Your task to perform on an android device: change timer sound Image 0: 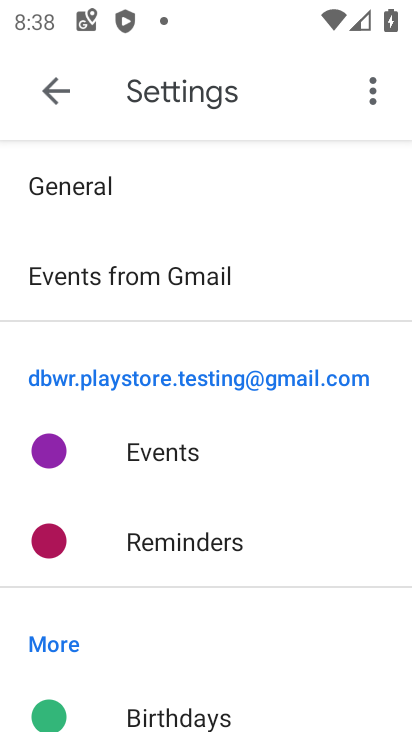
Step 0: press home button
Your task to perform on an android device: change timer sound Image 1: 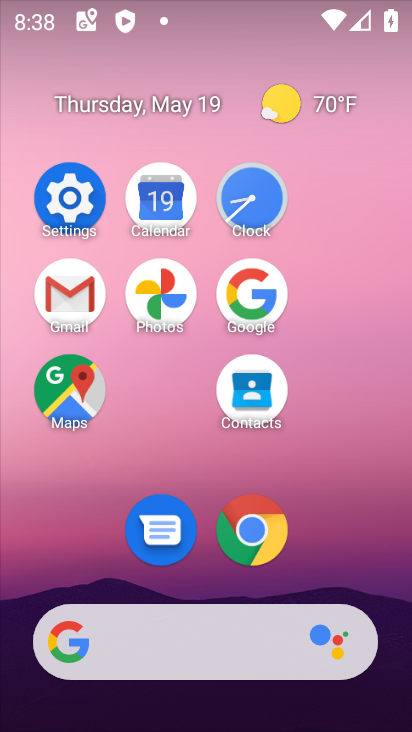
Step 1: click (246, 207)
Your task to perform on an android device: change timer sound Image 2: 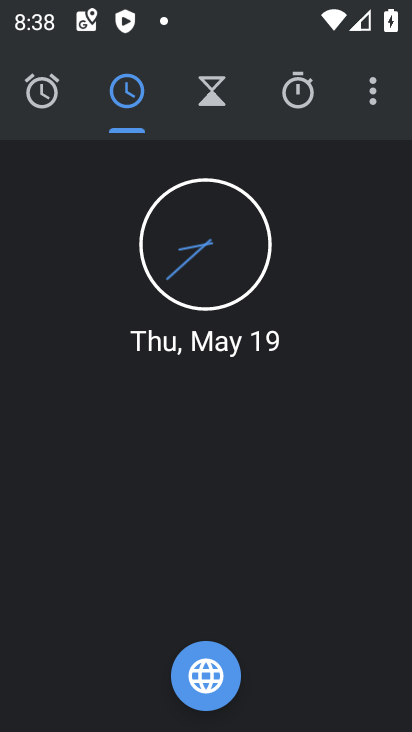
Step 2: click (374, 84)
Your task to perform on an android device: change timer sound Image 3: 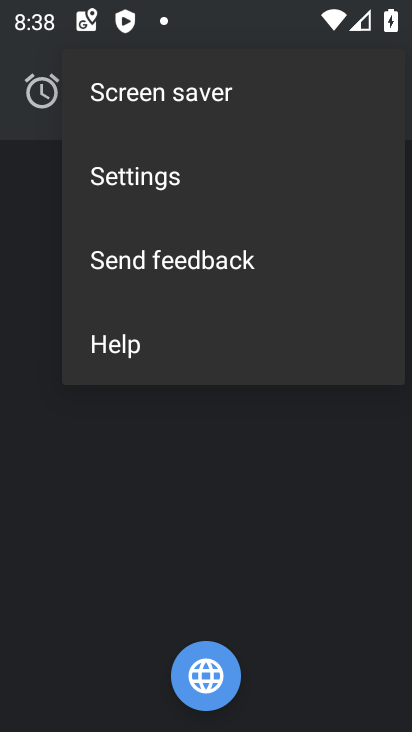
Step 3: click (168, 171)
Your task to perform on an android device: change timer sound Image 4: 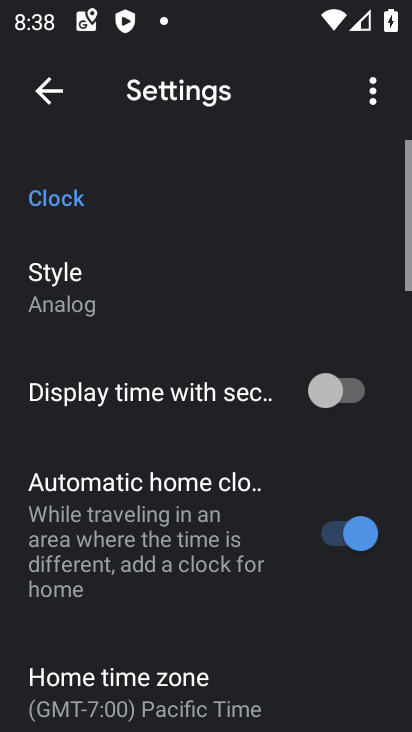
Step 4: drag from (196, 545) to (248, 180)
Your task to perform on an android device: change timer sound Image 5: 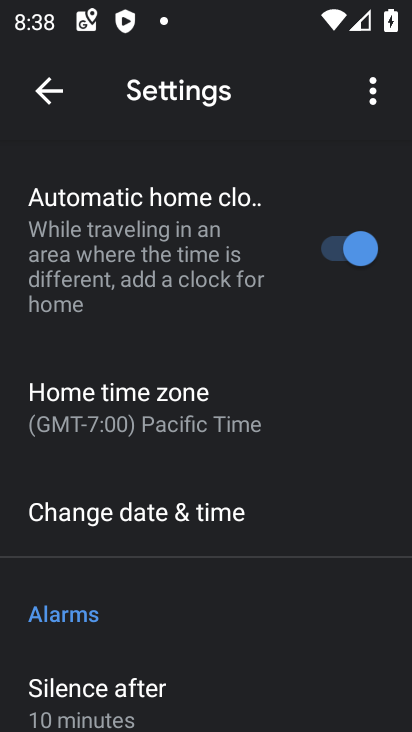
Step 5: drag from (211, 614) to (200, 201)
Your task to perform on an android device: change timer sound Image 6: 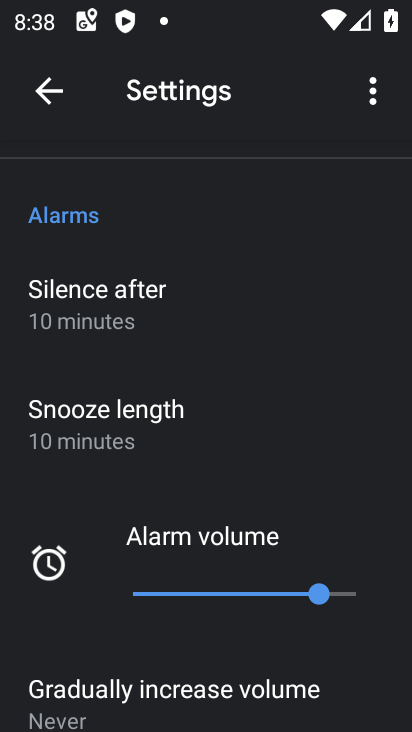
Step 6: drag from (193, 622) to (217, 226)
Your task to perform on an android device: change timer sound Image 7: 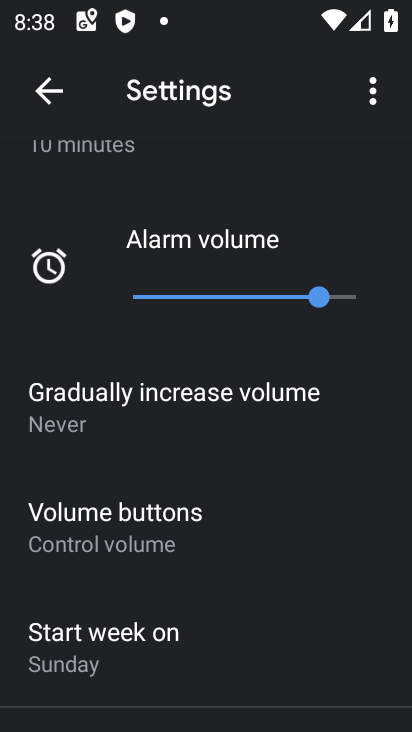
Step 7: drag from (198, 608) to (236, 241)
Your task to perform on an android device: change timer sound Image 8: 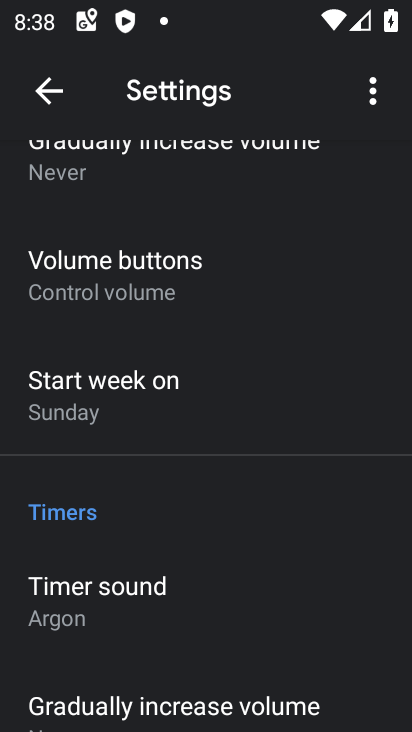
Step 8: click (164, 604)
Your task to perform on an android device: change timer sound Image 9: 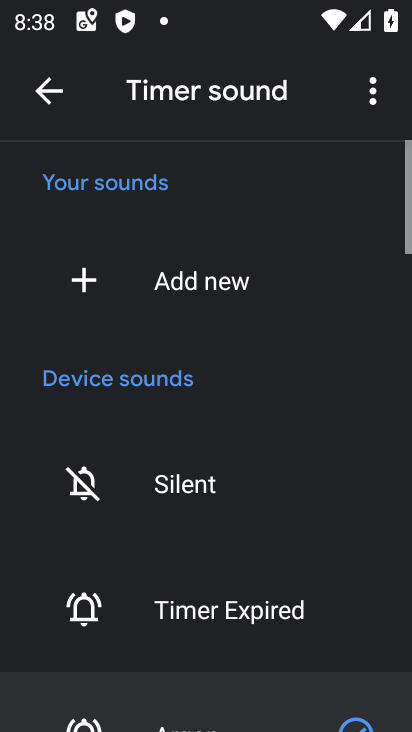
Step 9: click (165, 604)
Your task to perform on an android device: change timer sound Image 10: 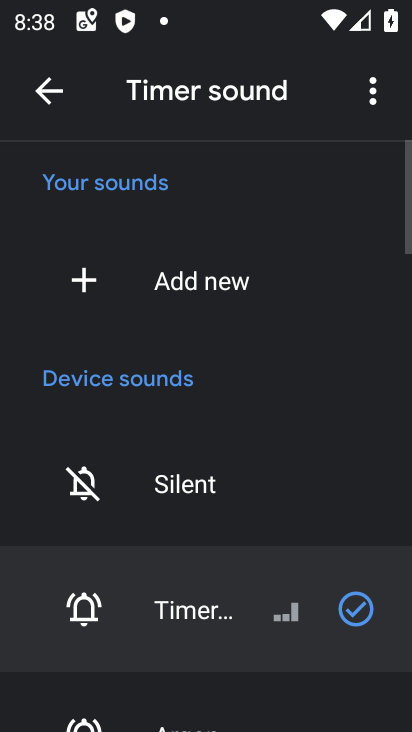
Step 10: task complete